Your task to perform on an android device: change the clock display to analog Image 0: 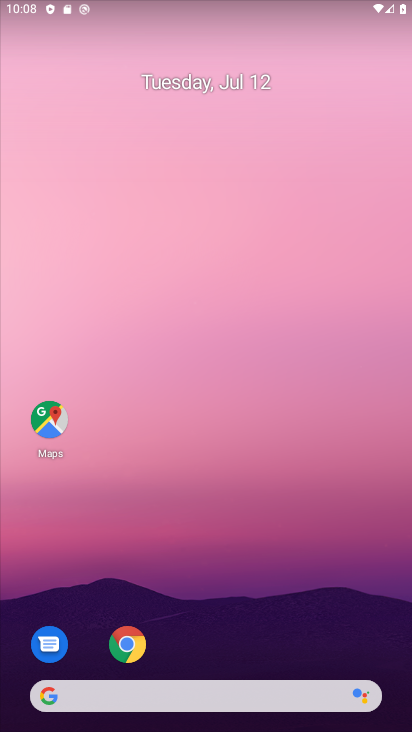
Step 0: drag from (280, 676) to (237, 253)
Your task to perform on an android device: change the clock display to analog Image 1: 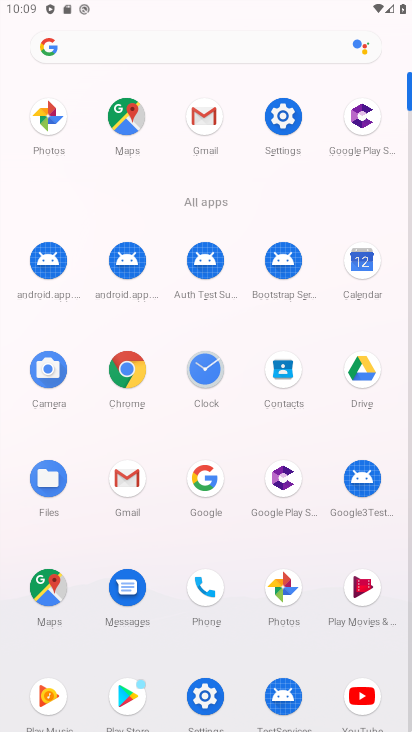
Step 1: click (212, 375)
Your task to perform on an android device: change the clock display to analog Image 2: 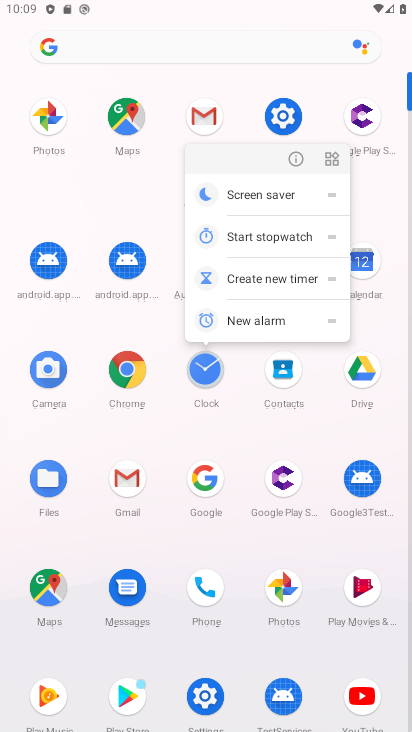
Step 2: click (201, 374)
Your task to perform on an android device: change the clock display to analog Image 3: 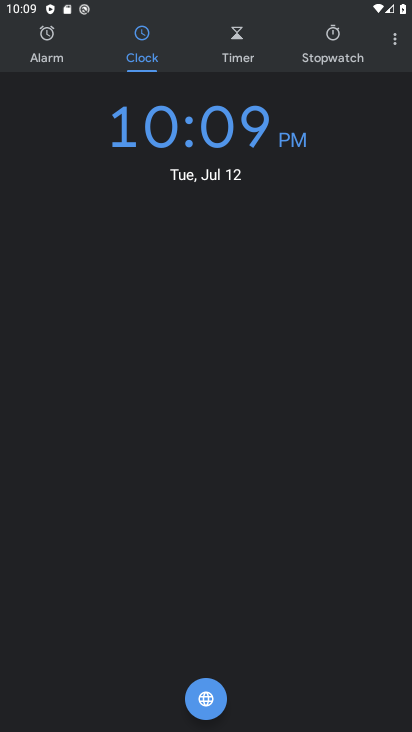
Step 3: click (396, 43)
Your task to perform on an android device: change the clock display to analog Image 4: 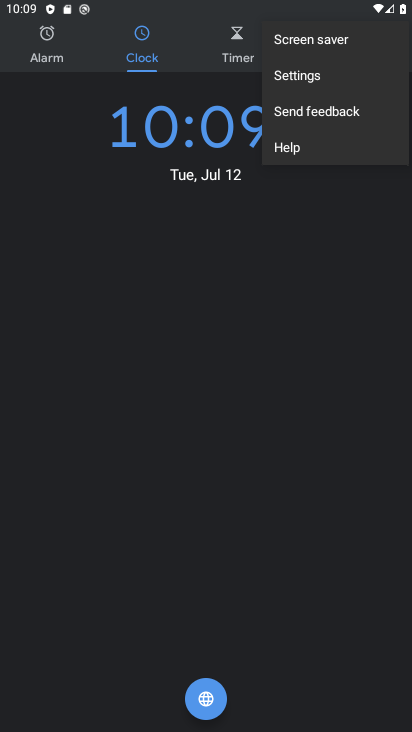
Step 4: click (311, 77)
Your task to perform on an android device: change the clock display to analog Image 5: 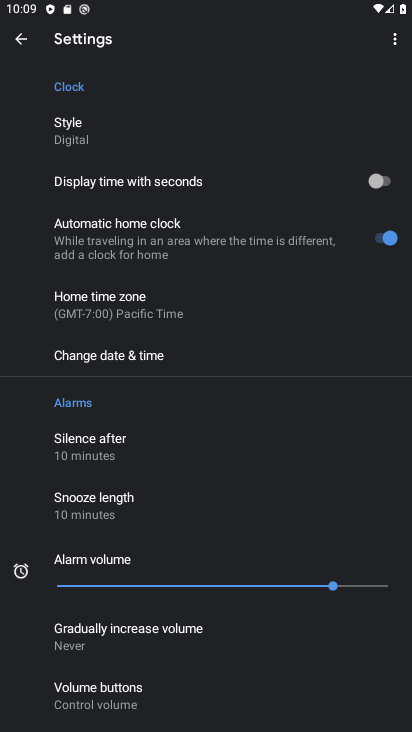
Step 5: click (76, 130)
Your task to perform on an android device: change the clock display to analog Image 6: 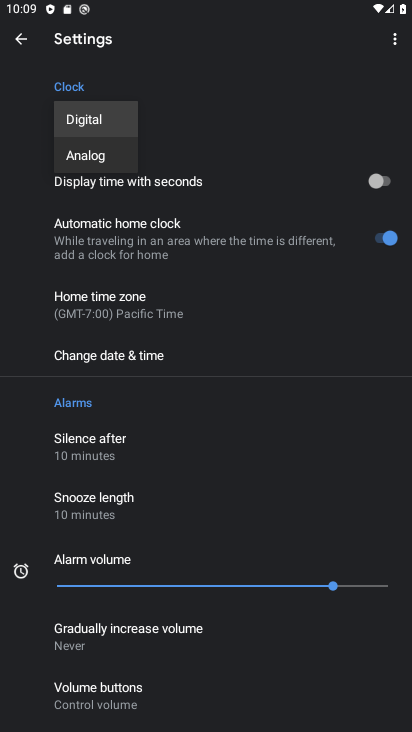
Step 6: click (94, 157)
Your task to perform on an android device: change the clock display to analog Image 7: 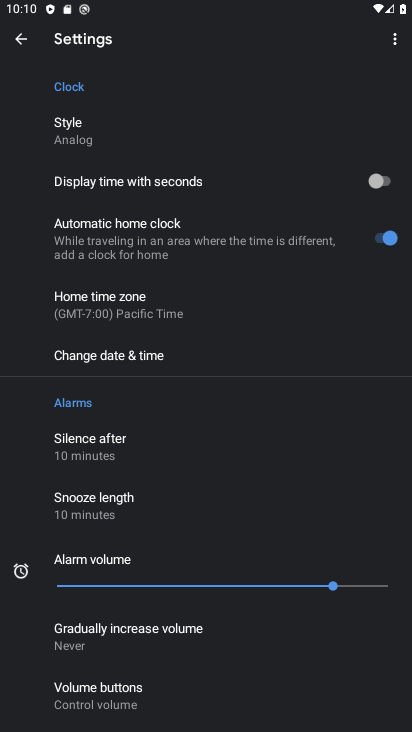
Step 7: task complete